Your task to perform on an android device: change the clock display to digital Image 0: 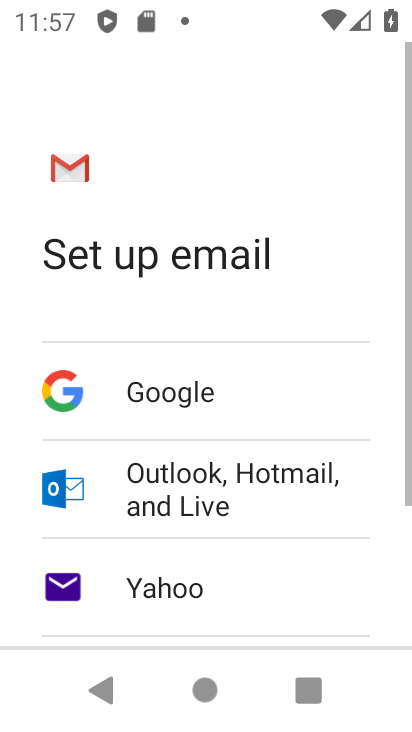
Step 0: press home button
Your task to perform on an android device: change the clock display to digital Image 1: 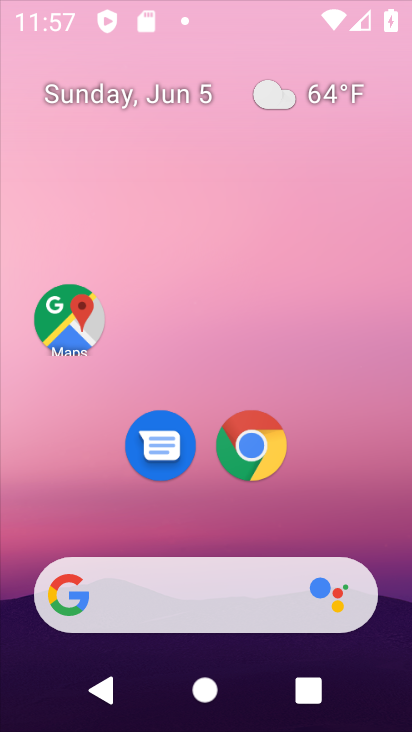
Step 1: drag from (323, 592) to (376, 0)
Your task to perform on an android device: change the clock display to digital Image 2: 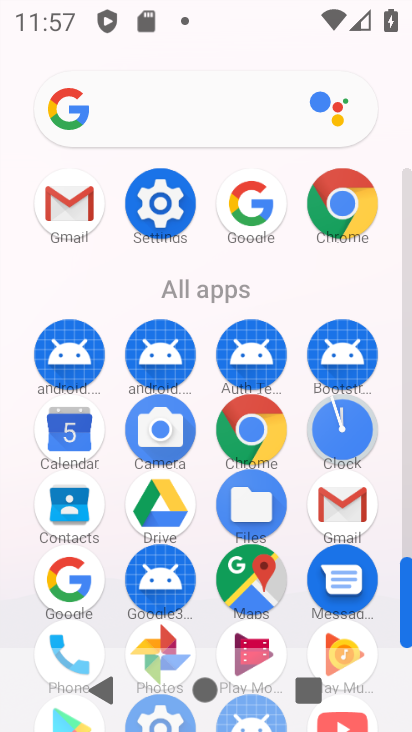
Step 2: click (338, 440)
Your task to perform on an android device: change the clock display to digital Image 3: 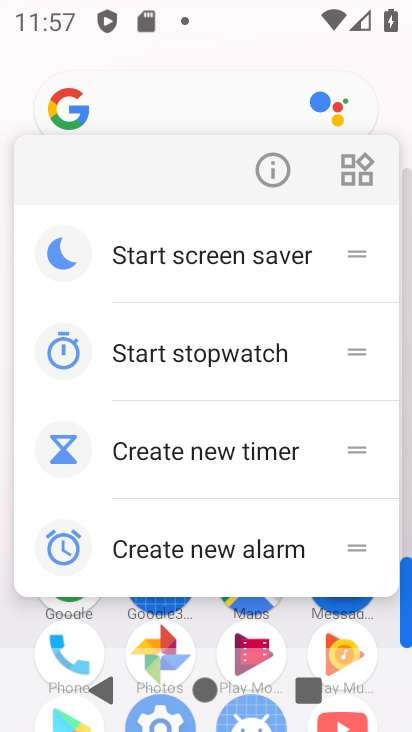
Step 3: click (176, 55)
Your task to perform on an android device: change the clock display to digital Image 4: 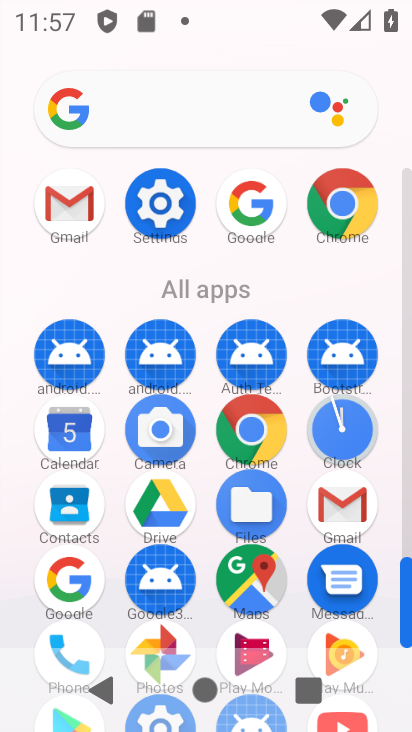
Step 4: click (336, 424)
Your task to perform on an android device: change the clock display to digital Image 5: 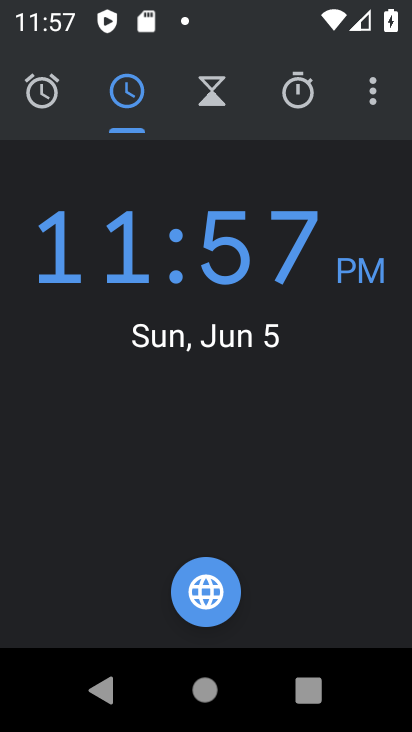
Step 5: click (373, 102)
Your task to perform on an android device: change the clock display to digital Image 6: 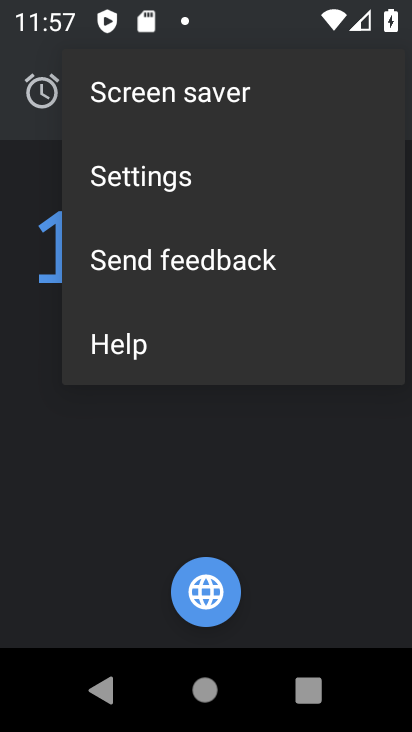
Step 6: click (186, 174)
Your task to perform on an android device: change the clock display to digital Image 7: 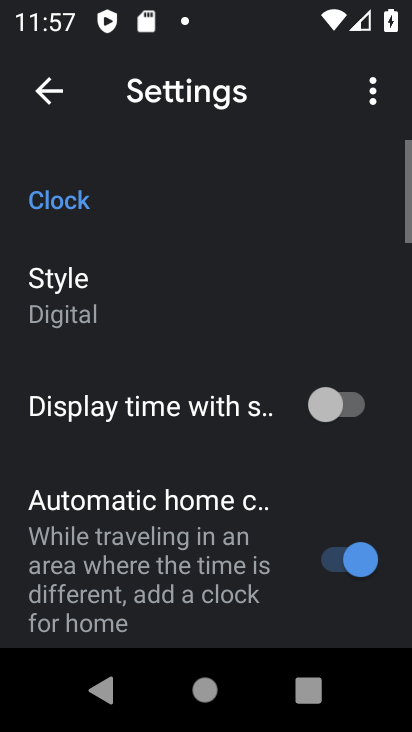
Step 7: click (151, 278)
Your task to perform on an android device: change the clock display to digital Image 8: 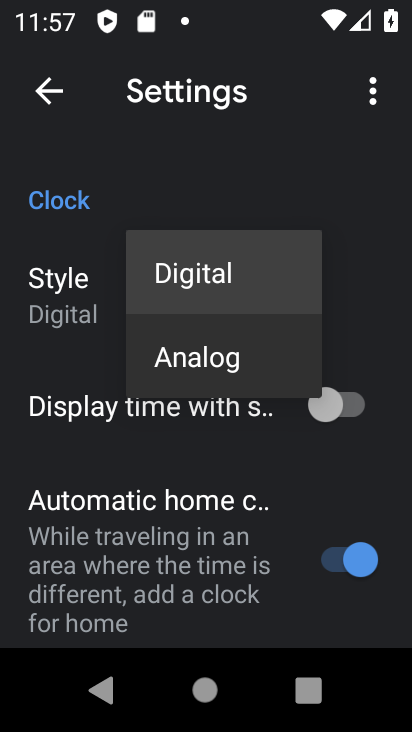
Step 8: task complete